Your task to perform on an android device: add a contact in the contacts app Image 0: 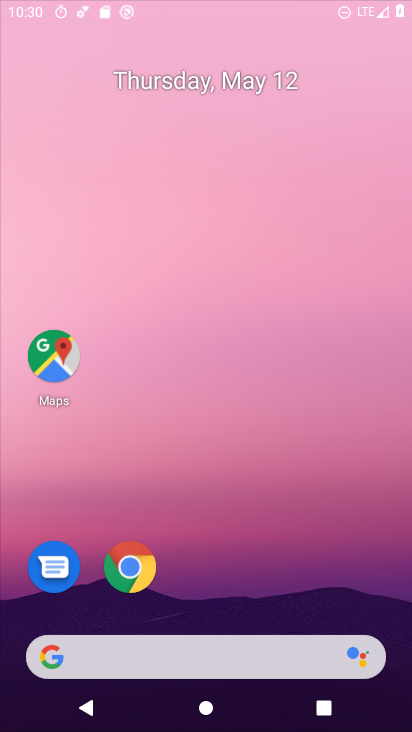
Step 0: click (200, 181)
Your task to perform on an android device: add a contact in the contacts app Image 1: 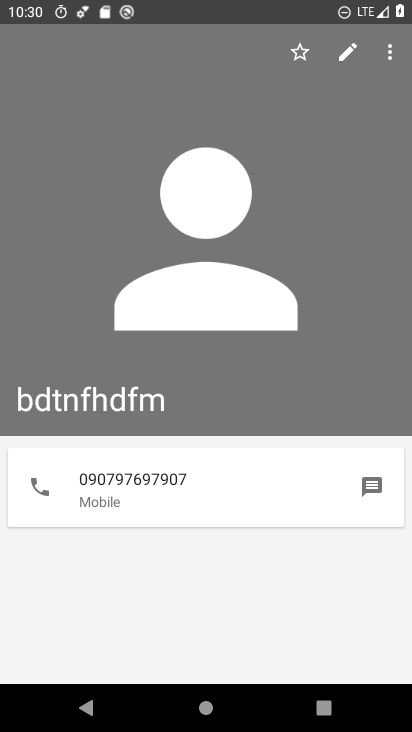
Step 1: press home button
Your task to perform on an android device: add a contact in the contacts app Image 2: 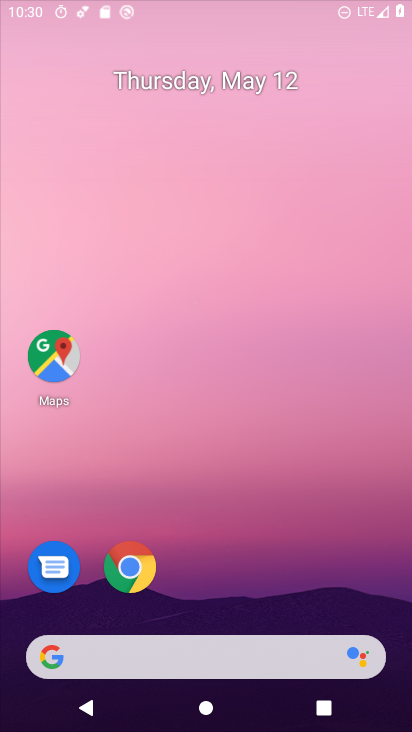
Step 2: drag from (189, 613) to (195, 153)
Your task to perform on an android device: add a contact in the contacts app Image 3: 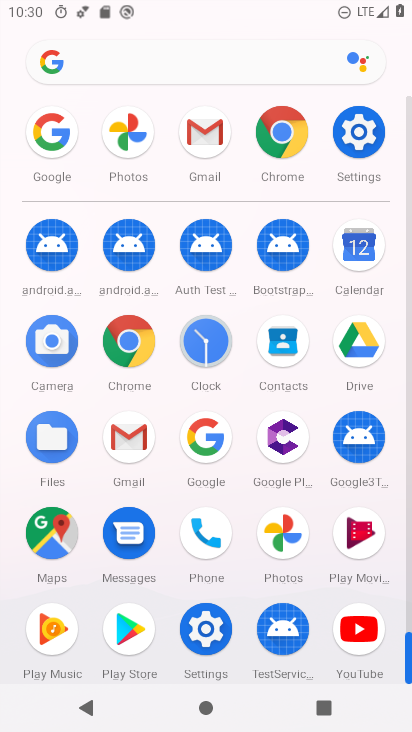
Step 3: click (286, 348)
Your task to perform on an android device: add a contact in the contacts app Image 4: 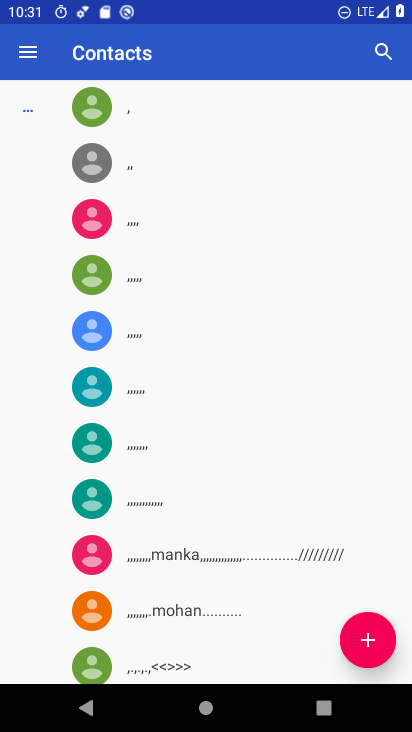
Step 4: click (390, 639)
Your task to perform on an android device: add a contact in the contacts app Image 5: 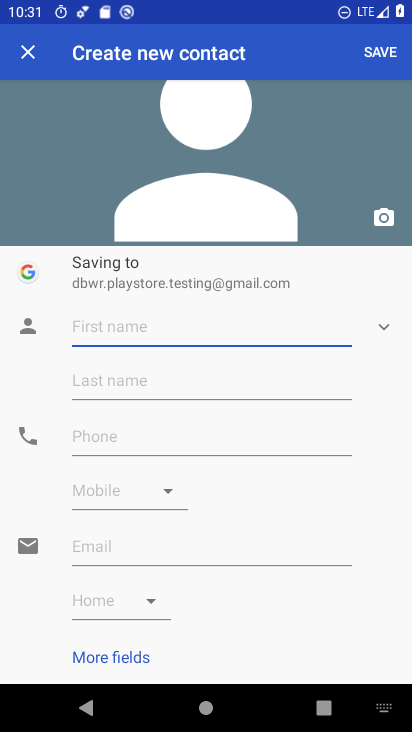
Step 5: type "jhgjg"
Your task to perform on an android device: add a contact in the contacts app Image 6: 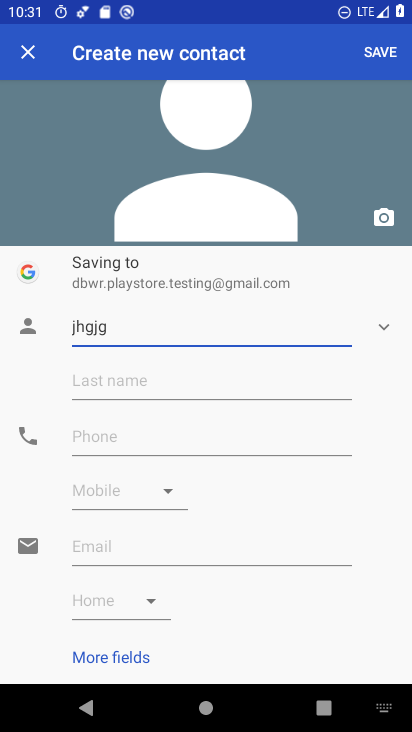
Step 6: click (174, 439)
Your task to perform on an android device: add a contact in the contacts app Image 7: 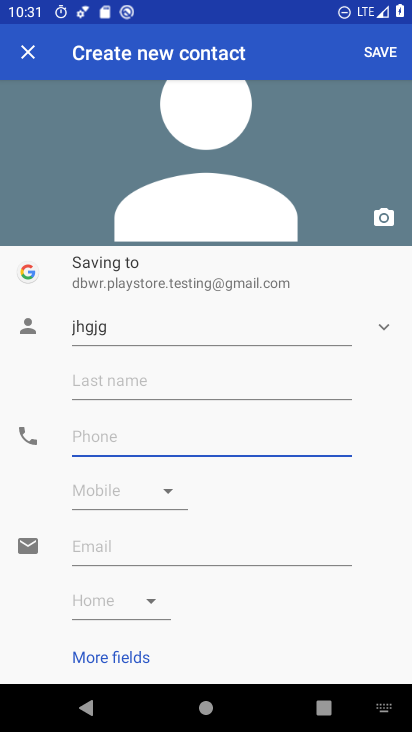
Step 7: type "9887575"
Your task to perform on an android device: add a contact in the contacts app Image 8: 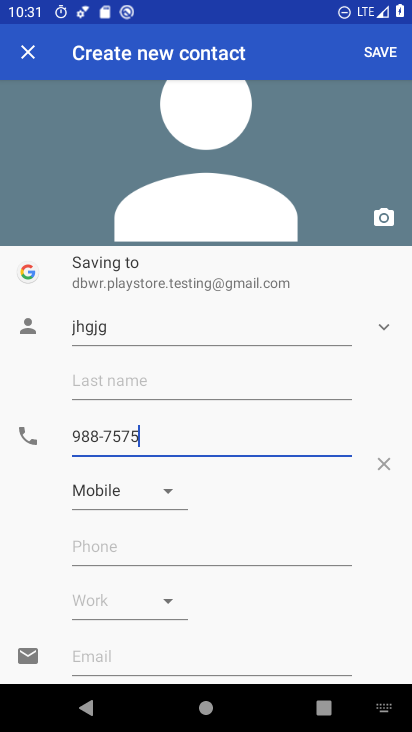
Step 8: click (368, 55)
Your task to perform on an android device: add a contact in the contacts app Image 9: 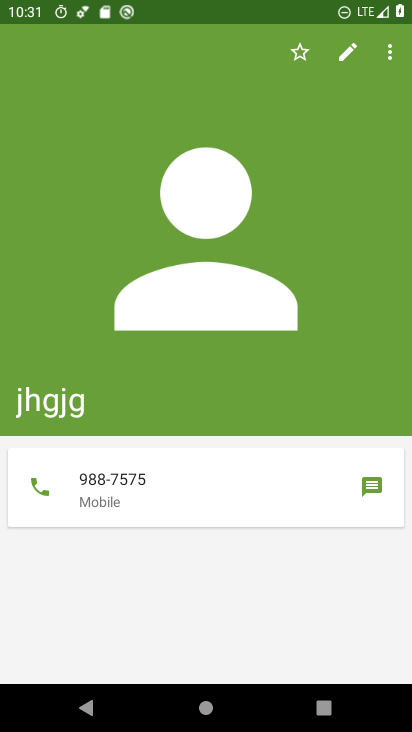
Step 9: task complete